Your task to perform on an android device: What's the weather going to be this weekend? Image 0: 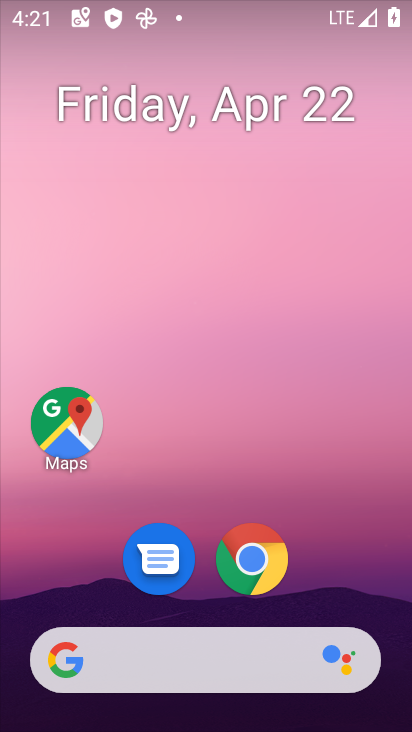
Step 0: drag from (335, 532) to (249, 103)
Your task to perform on an android device: What's the weather going to be this weekend? Image 1: 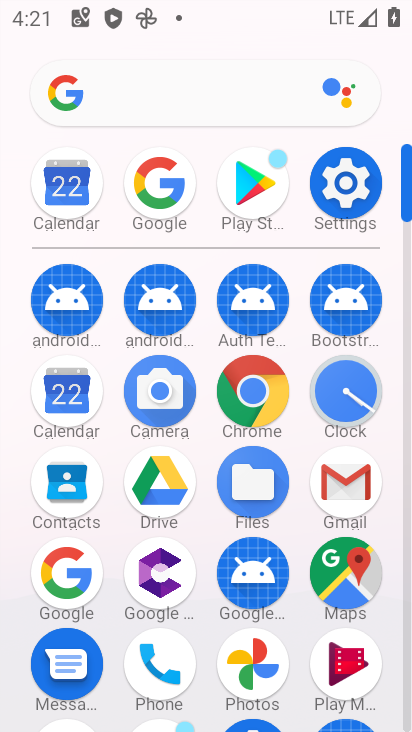
Step 1: click (88, 564)
Your task to perform on an android device: What's the weather going to be this weekend? Image 2: 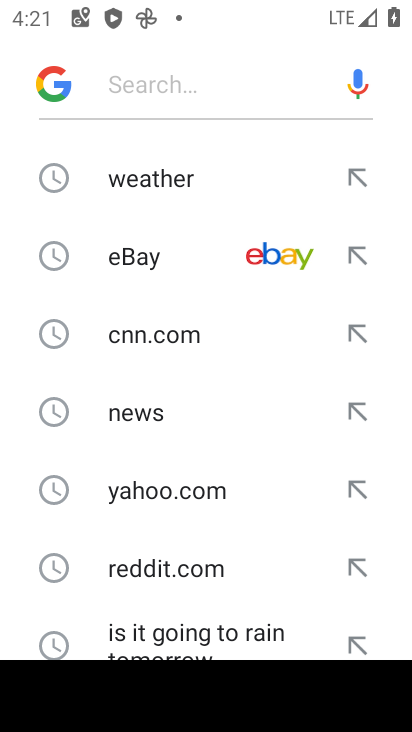
Step 2: click (164, 178)
Your task to perform on an android device: What's the weather going to be this weekend? Image 3: 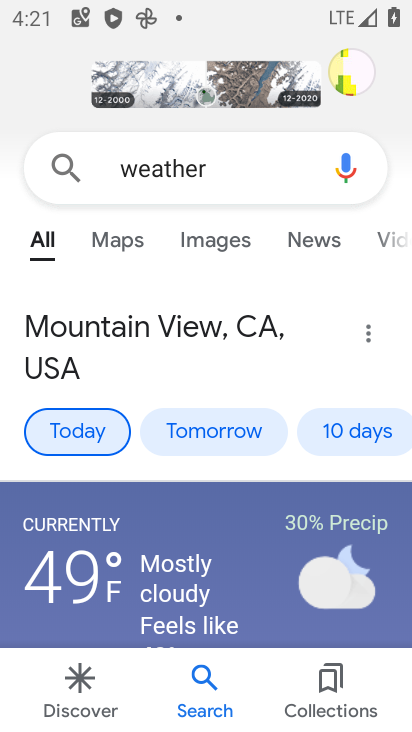
Step 3: click (337, 421)
Your task to perform on an android device: What's the weather going to be this weekend? Image 4: 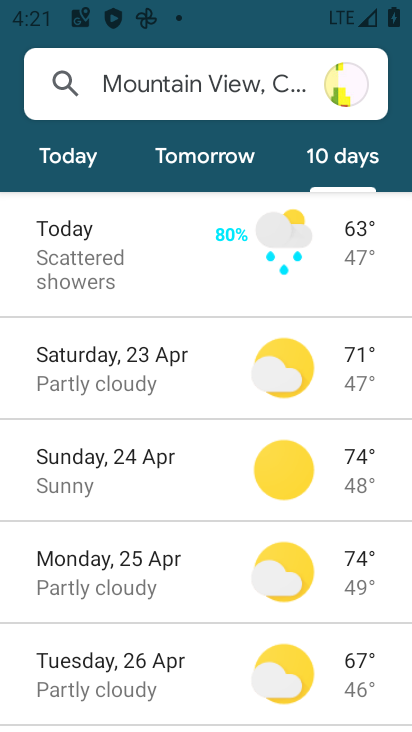
Step 4: task complete